Your task to perform on an android device: change text size in settings app Image 0: 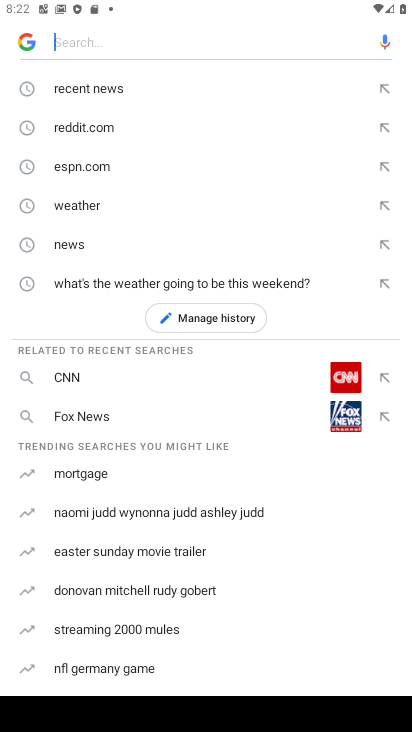
Step 0: press back button
Your task to perform on an android device: change text size in settings app Image 1: 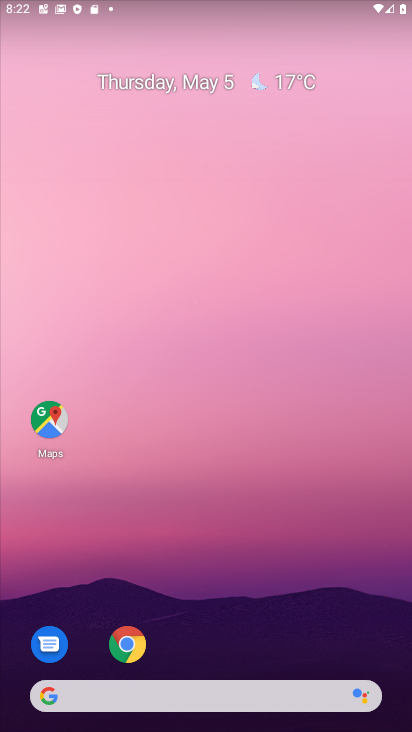
Step 1: drag from (286, 636) to (209, 244)
Your task to perform on an android device: change text size in settings app Image 2: 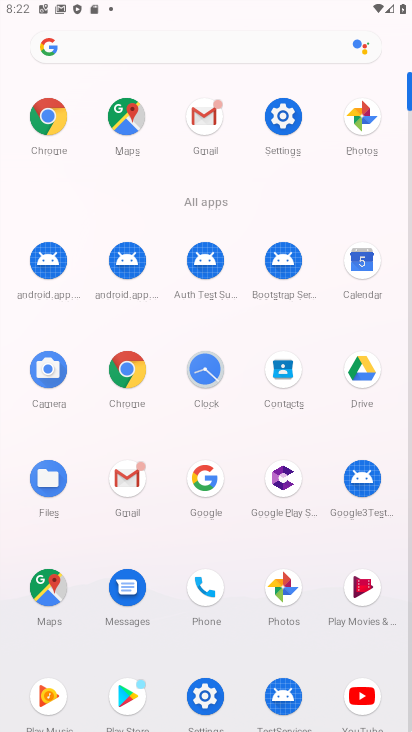
Step 2: click (289, 127)
Your task to perform on an android device: change text size in settings app Image 3: 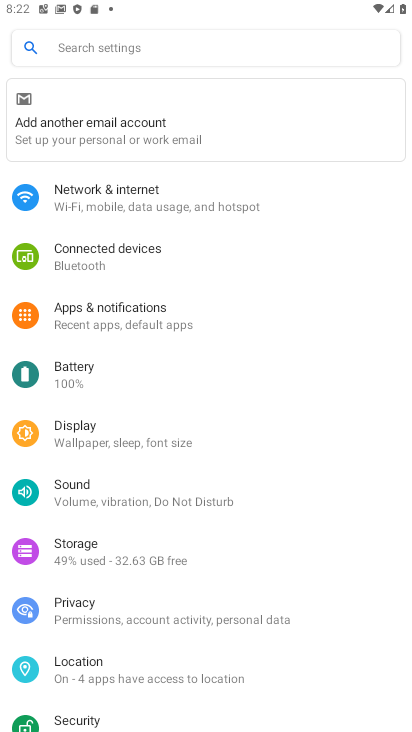
Step 3: click (266, 447)
Your task to perform on an android device: change text size in settings app Image 4: 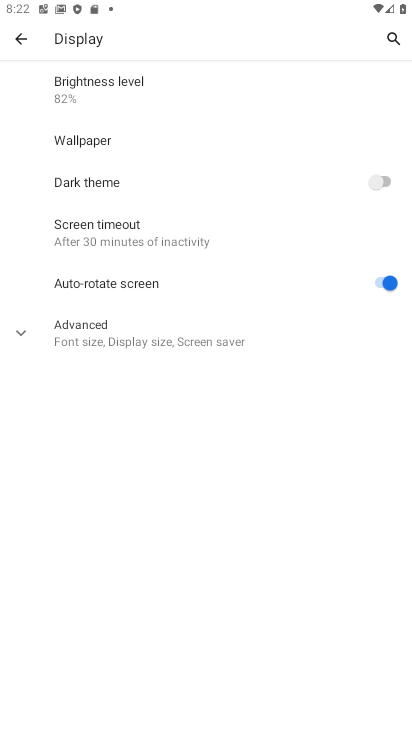
Step 4: click (316, 331)
Your task to perform on an android device: change text size in settings app Image 5: 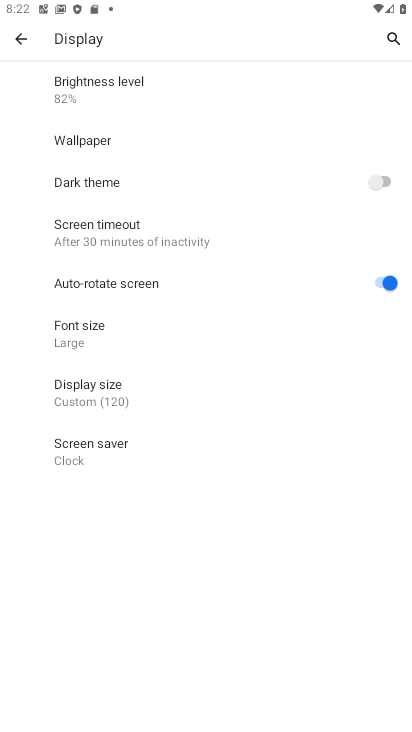
Step 5: click (274, 344)
Your task to perform on an android device: change text size in settings app Image 6: 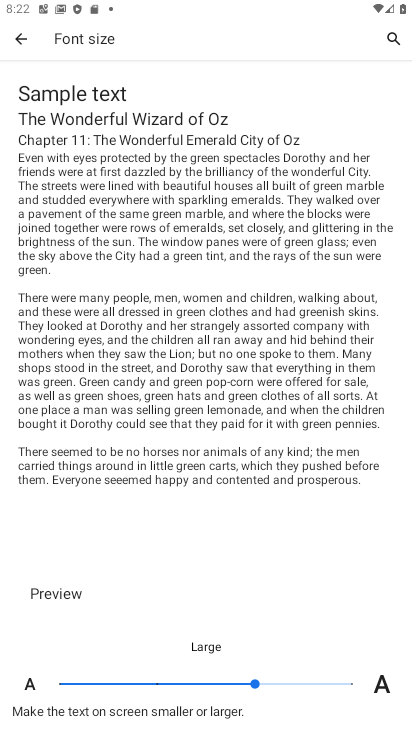
Step 6: click (216, 678)
Your task to perform on an android device: change text size in settings app Image 7: 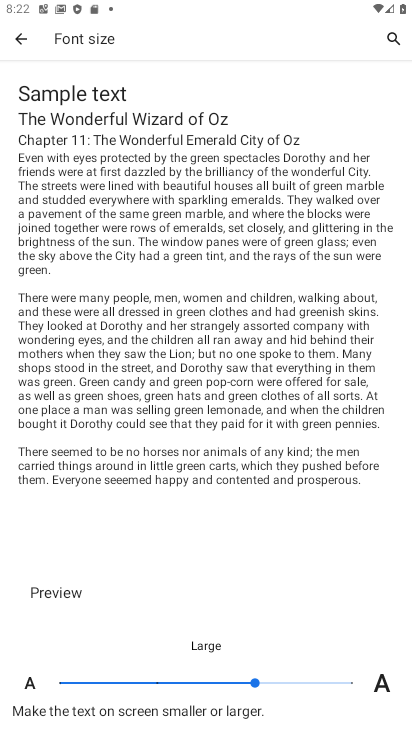
Step 7: click (204, 686)
Your task to perform on an android device: change text size in settings app Image 8: 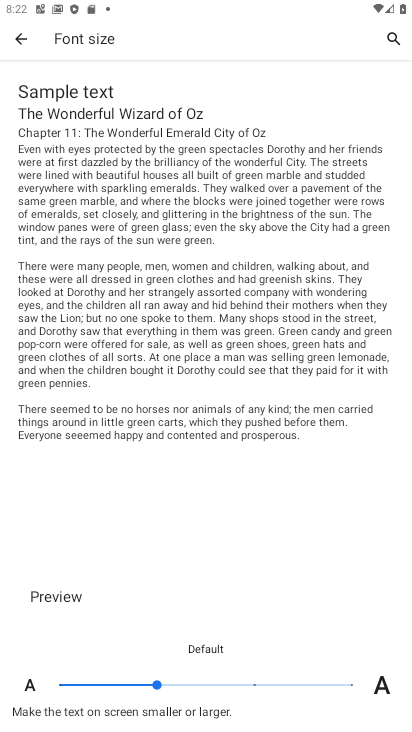
Step 8: task complete